Your task to perform on an android device: Clear all items from cart on amazon. Image 0: 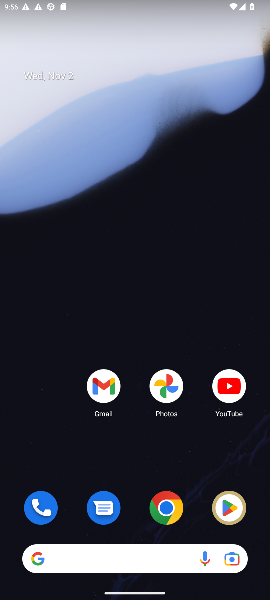
Step 0: click (166, 509)
Your task to perform on an android device: Clear all items from cart on amazon. Image 1: 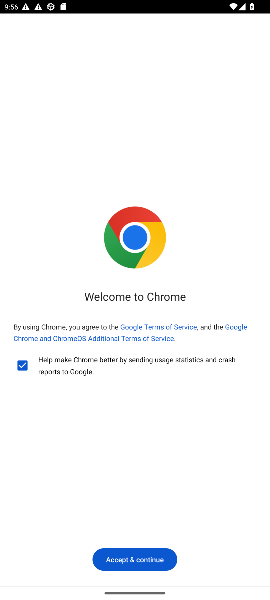
Step 1: click (137, 557)
Your task to perform on an android device: Clear all items from cart on amazon. Image 2: 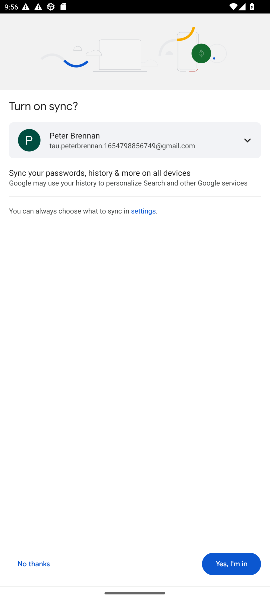
Step 2: click (230, 563)
Your task to perform on an android device: Clear all items from cart on amazon. Image 3: 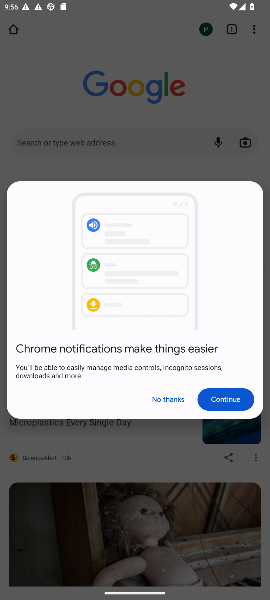
Step 3: click (170, 402)
Your task to perform on an android device: Clear all items from cart on amazon. Image 4: 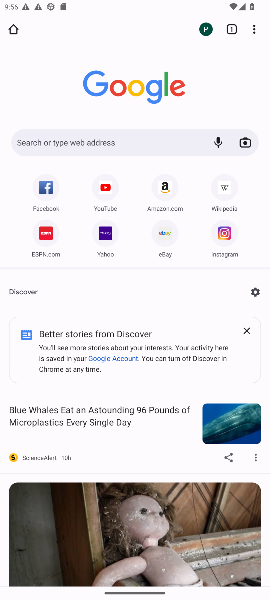
Step 4: click (146, 141)
Your task to perform on an android device: Clear all items from cart on amazon. Image 5: 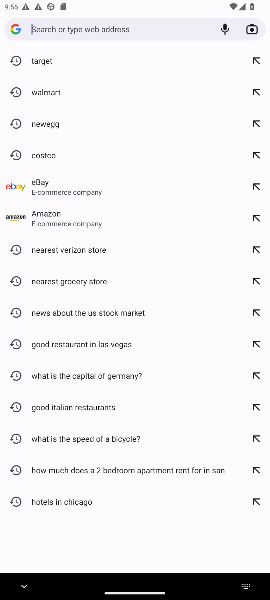
Step 5: type "amazon"
Your task to perform on an android device: Clear all items from cart on amazon. Image 6: 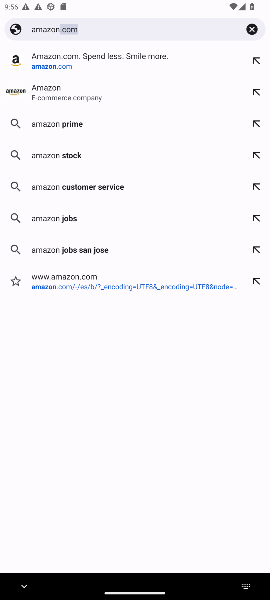
Step 6: click (52, 88)
Your task to perform on an android device: Clear all items from cart on amazon. Image 7: 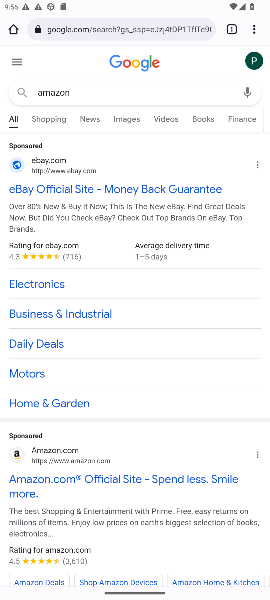
Step 7: drag from (93, 492) to (135, 237)
Your task to perform on an android device: Clear all items from cart on amazon. Image 8: 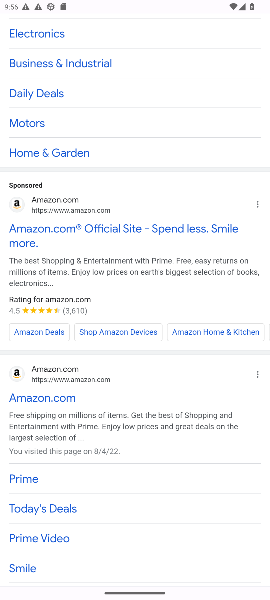
Step 8: click (75, 399)
Your task to perform on an android device: Clear all items from cart on amazon. Image 9: 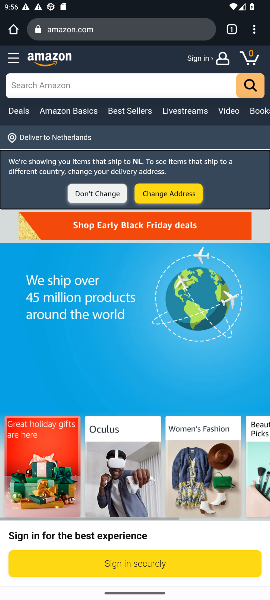
Step 9: click (251, 60)
Your task to perform on an android device: Clear all items from cart on amazon. Image 10: 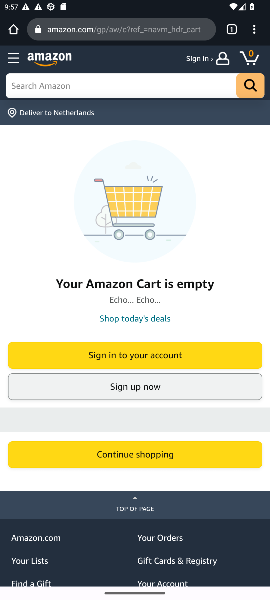
Step 10: task complete